Your task to perform on an android device: open wifi settings Image 0: 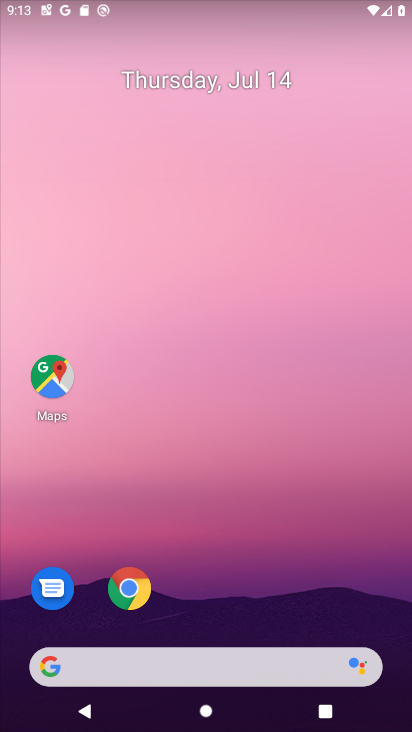
Step 0: click (73, 156)
Your task to perform on an android device: open wifi settings Image 1: 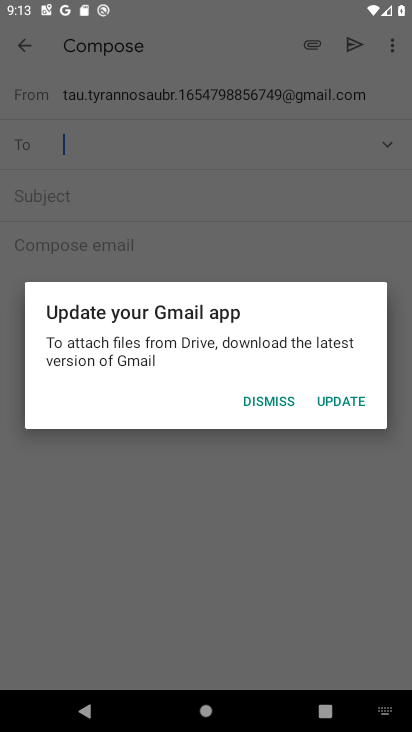
Step 1: click (249, 395)
Your task to perform on an android device: open wifi settings Image 2: 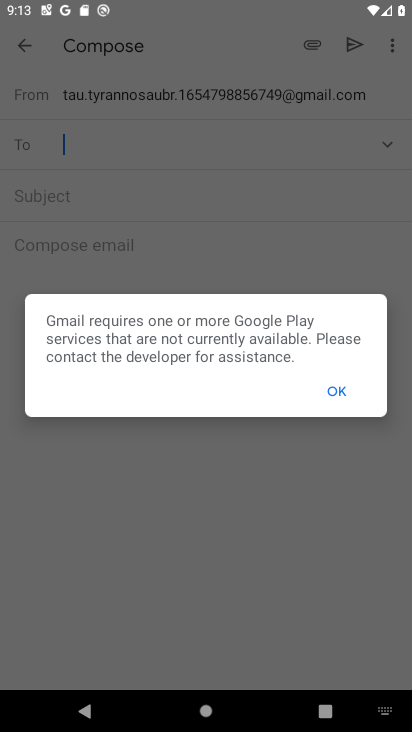
Step 2: click (338, 392)
Your task to perform on an android device: open wifi settings Image 3: 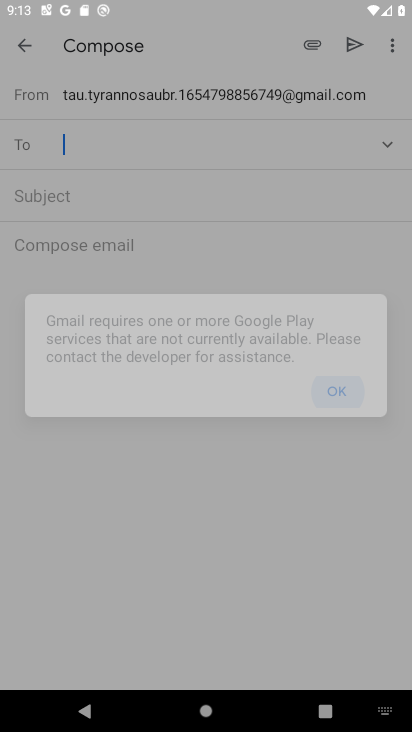
Step 3: click (338, 392)
Your task to perform on an android device: open wifi settings Image 4: 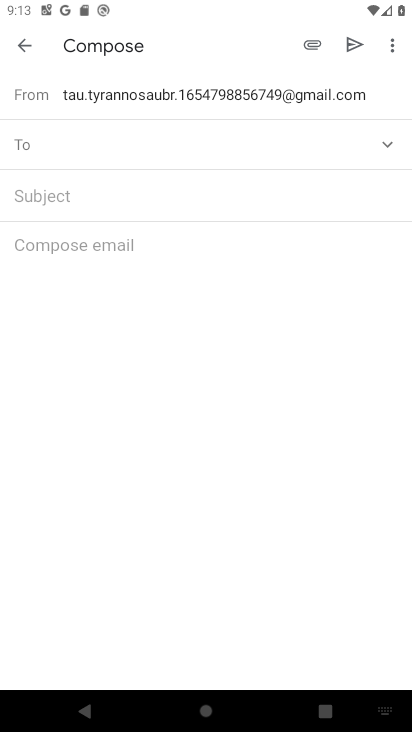
Step 4: click (25, 50)
Your task to perform on an android device: open wifi settings Image 5: 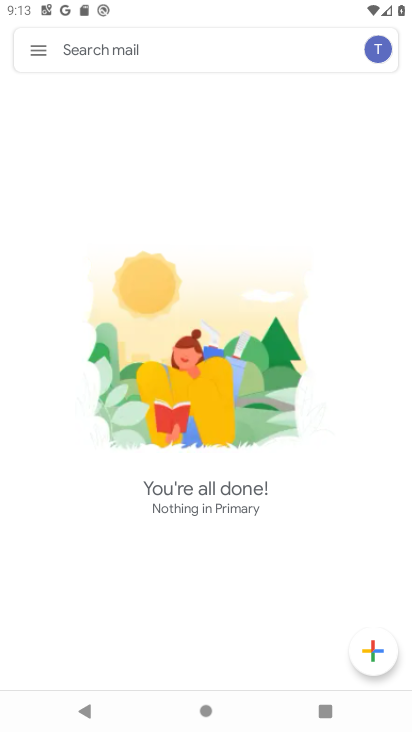
Step 5: press back button
Your task to perform on an android device: open wifi settings Image 6: 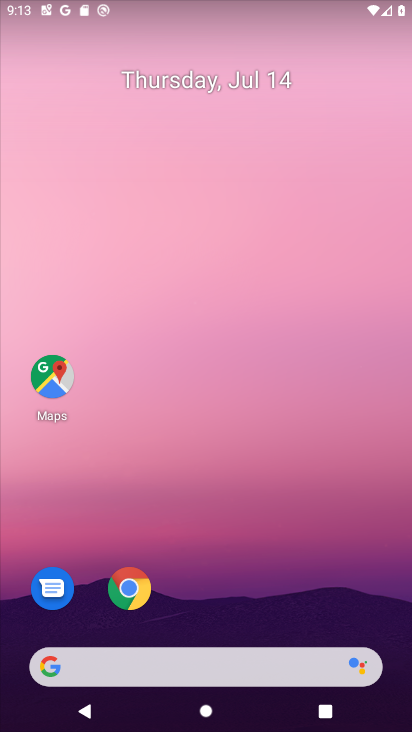
Step 6: drag from (250, 524) to (124, 154)
Your task to perform on an android device: open wifi settings Image 7: 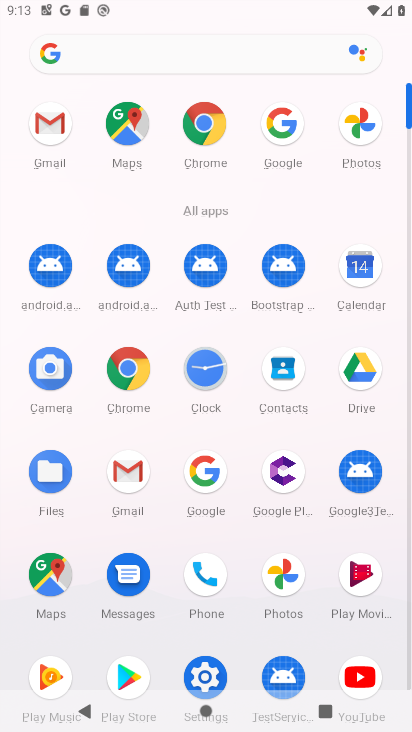
Step 7: click (200, 665)
Your task to perform on an android device: open wifi settings Image 8: 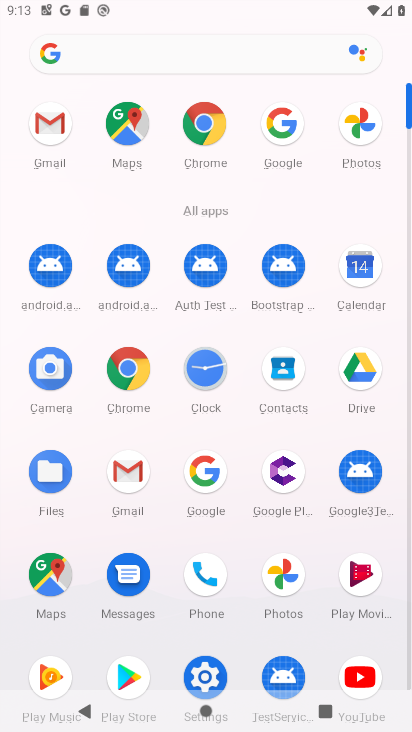
Step 8: click (207, 660)
Your task to perform on an android device: open wifi settings Image 9: 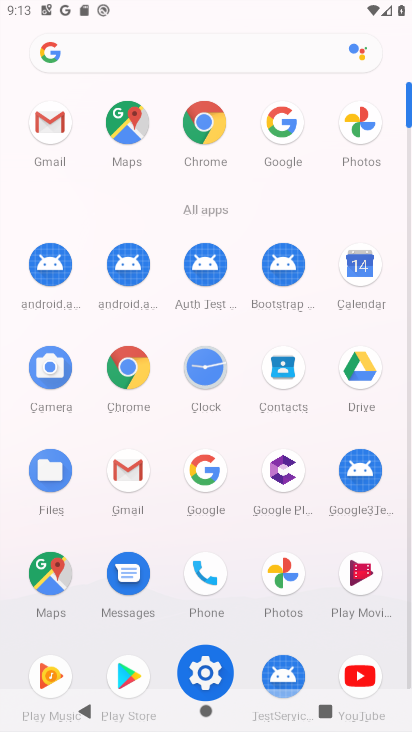
Step 9: click (212, 660)
Your task to perform on an android device: open wifi settings Image 10: 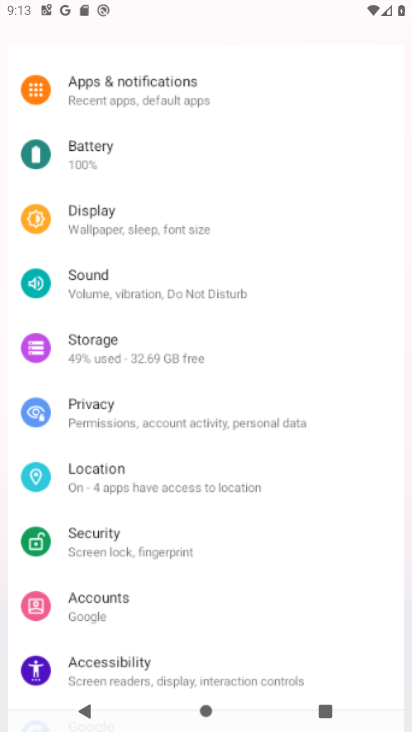
Step 10: click (214, 657)
Your task to perform on an android device: open wifi settings Image 11: 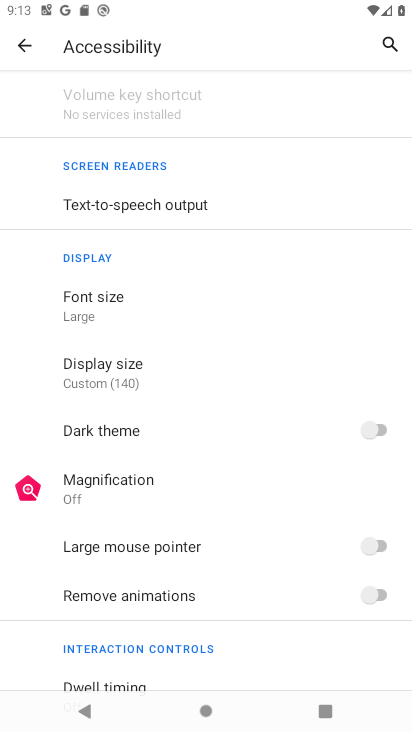
Step 11: click (21, 43)
Your task to perform on an android device: open wifi settings Image 12: 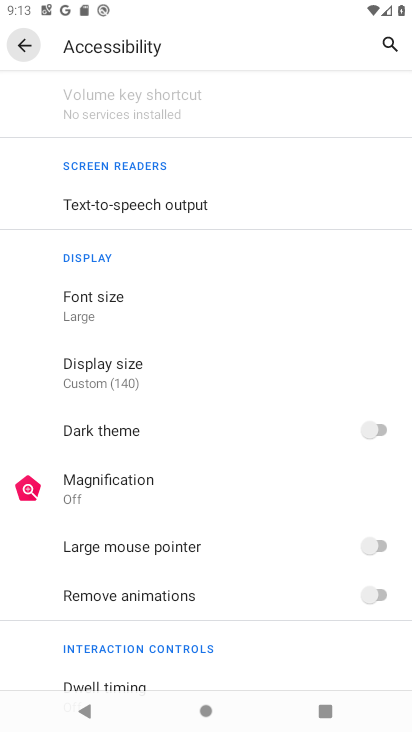
Step 12: click (21, 43)
Your task to perform on an android device: open wifi settings Image 13: 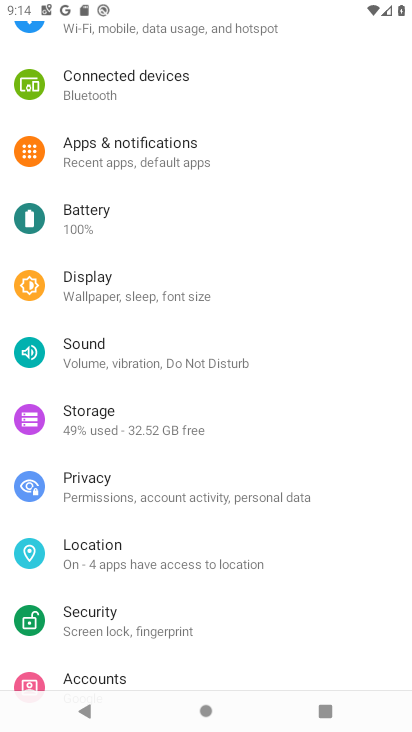
Step 13: drag from (145, 513) to (144, 209)
Your task to perform on an android device: open wifi settings Image 14: 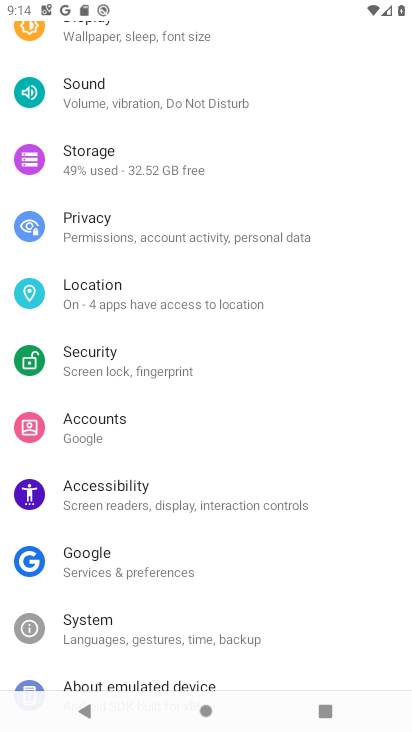
Step 14: drag from (179, 484) to (132, 339)
Your task to perform on an android device: open wifi settings Image 15: 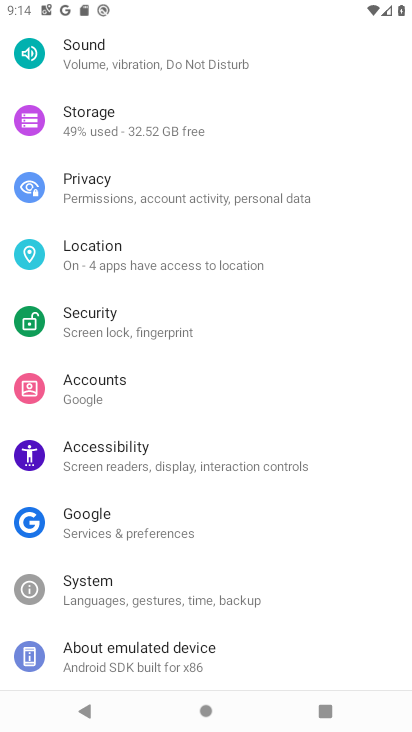
Step 15: drag from (93, 127) to (144, 506)
Your task to perform on an android device: open wifi settings Image 16: 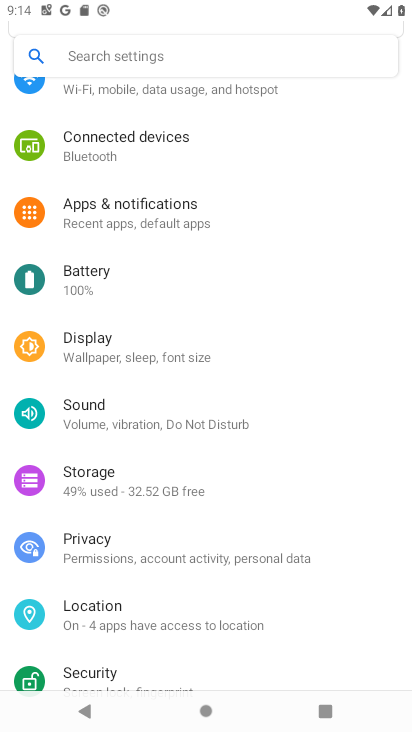
Step 16: drag from (67, 163) to (117, 427)
Your task to perform on an android device: open wifi settings Image 17: 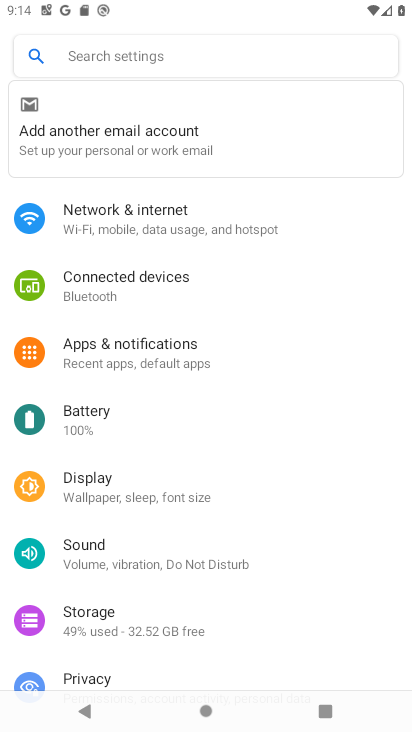
Step 17: drag from (81, 183) to (123, 451)
Your task to perform on an android device: open wifi settings Image 18: 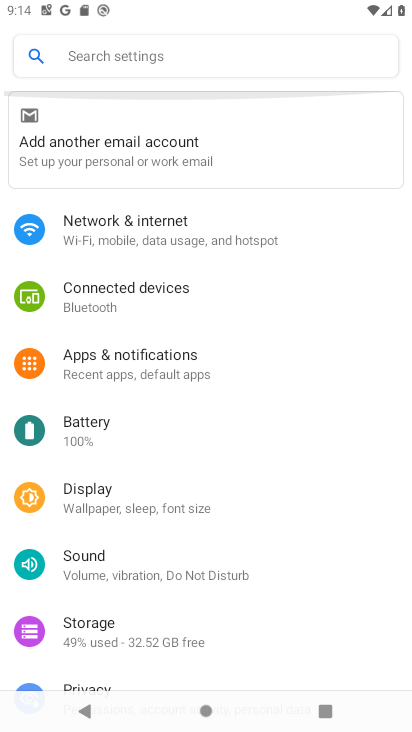
Step 18: drag from (144, 233) to (195, 449)
Your task to perform on an android device: open wifi settings Image 19: 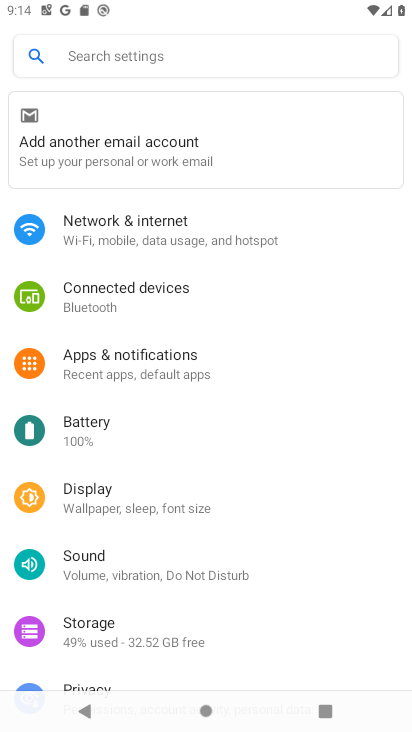
Step 19: click (135, 231)
Your task to perform on an android device: open wifi settings Image 20: 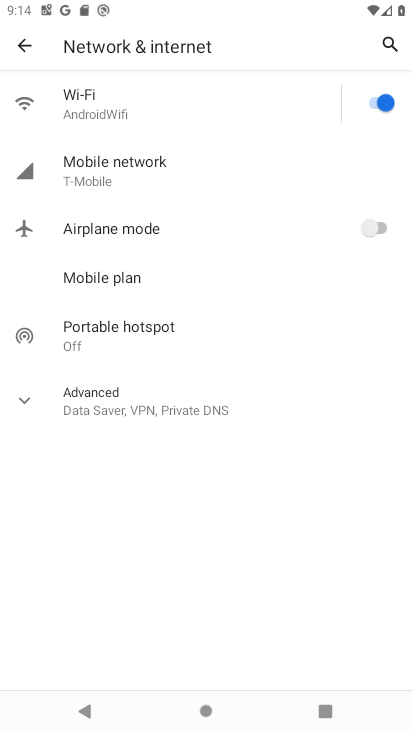
Step 20: task complete